Your task to perform on an android device: turn notification dots on Image 0: 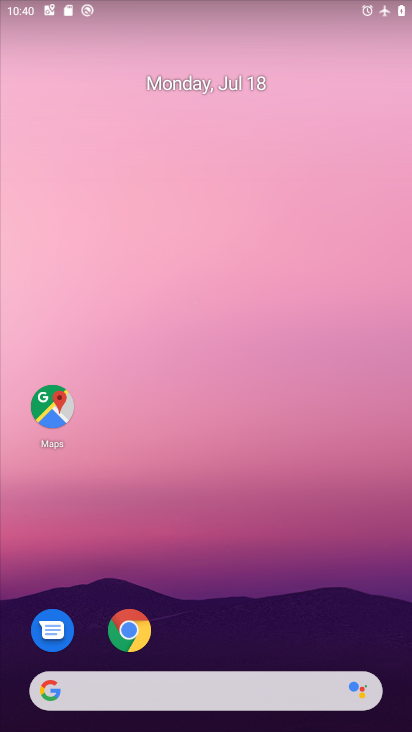
Step 0: drag from (184, 613) to (219, 151)
Your task to perform on an android device: turn notification dots on Image 1: 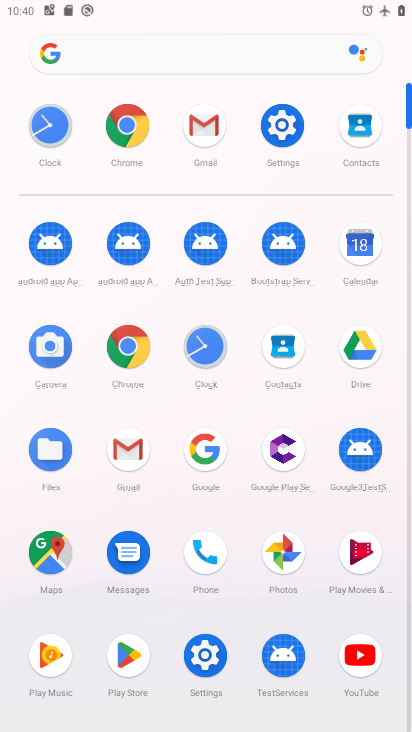
Step 1: click (291, 135)
Your task to perform on an android device: turn notification dots on Image 2: 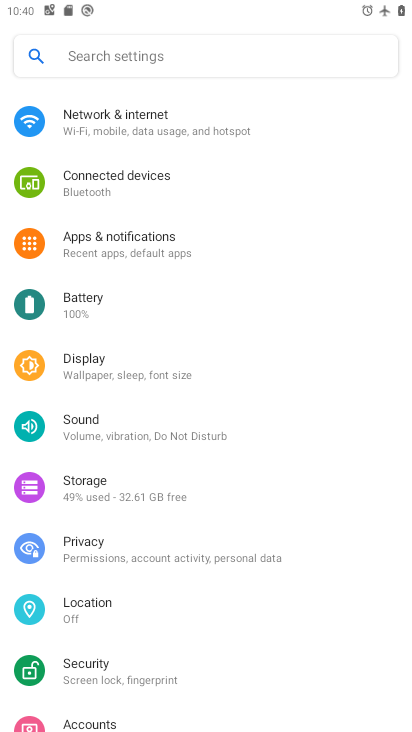
Step 2: click (185, 254)
Your task to perform on an android device: turn notification dots on Image 3: 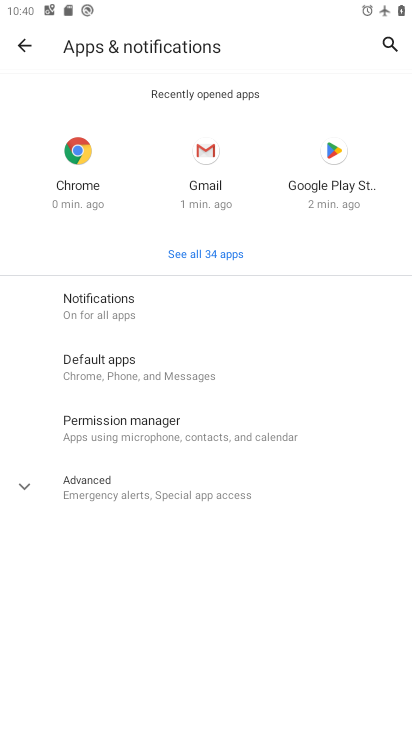
Step 3: click (123, 312)
Your task to perform on an android device: turn notification dots on Image 4: 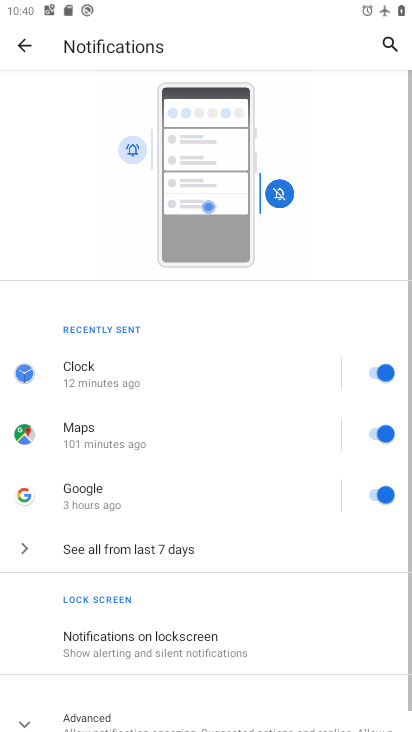
Step 4: drag from (254, 617) to (245, 278)
Your task to perform on an android device: turn notification dots on Image 5: 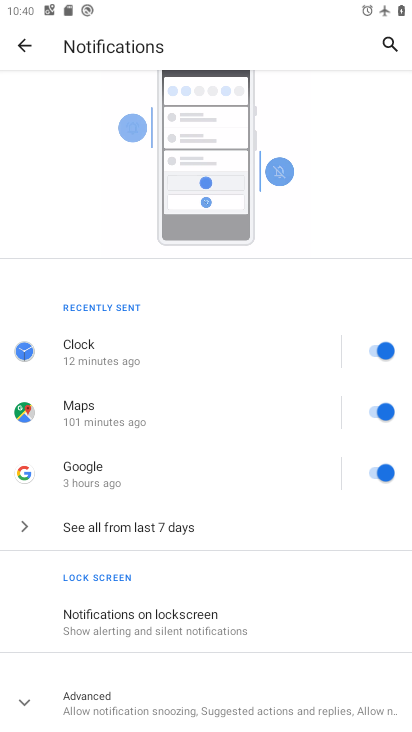
Step 5: click (190, 708)
Your task to perform on an android device: turn notification dots on Image 6: 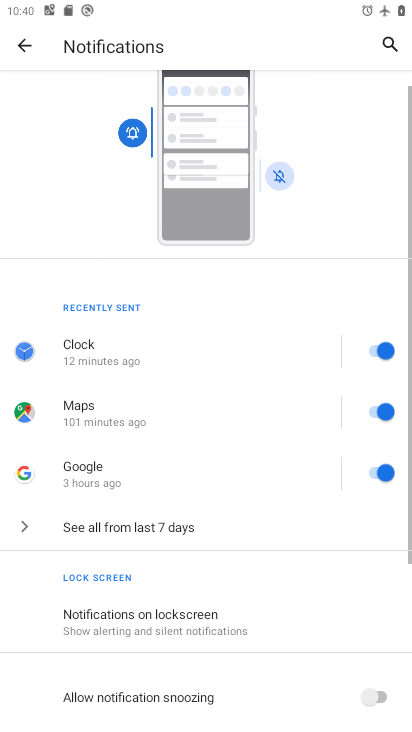
Step 6: drag from (209, 675) to (212, 336)
Your task to perform on an android device: turn notification dots on Image 7: 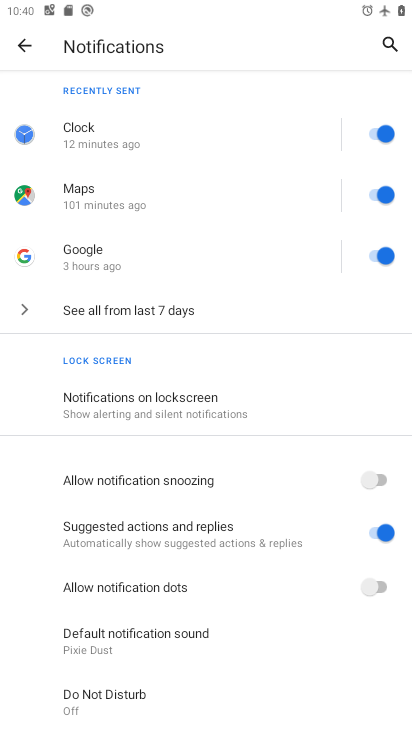
Step 7: click (375, 574)
Your task to perform on an android device: turn notification dots on Image 8: 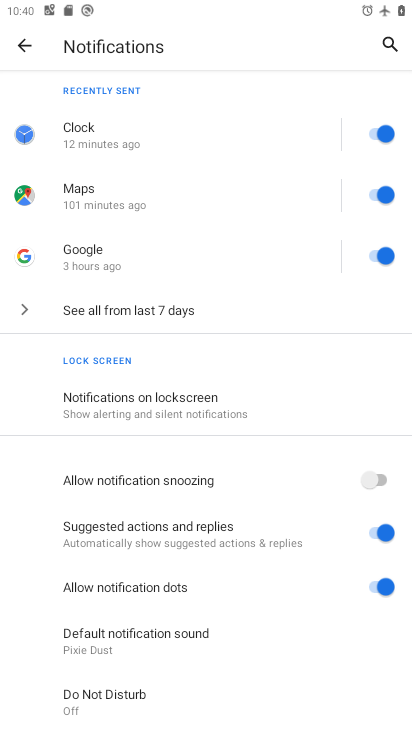
Step 8: task complete